Your task to perform on an android device: Show me popular videos on Youtube Image 0: 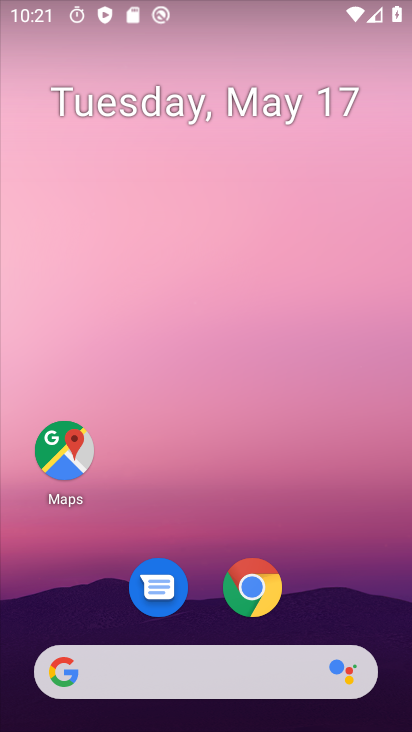
Step 0: drag from (325, 566) to (315, 195)
Your task to perform on an android device: Show me popular videos on Youtube Image 1: 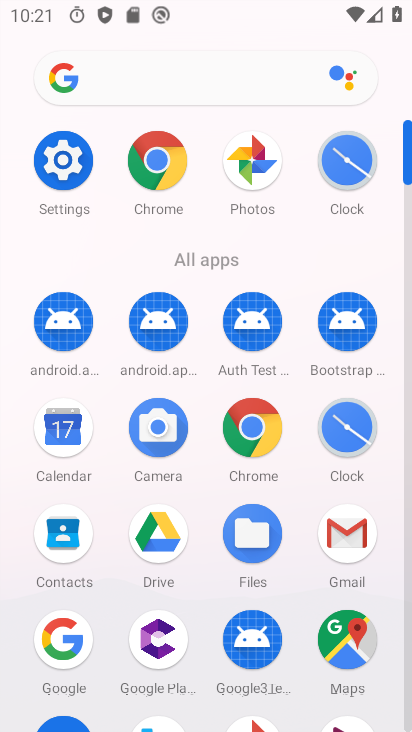
Step 1: drag from (214, 620) to (207, 303)
Your task to perform on an android device: Show me popular videos on Youtube Image 2: 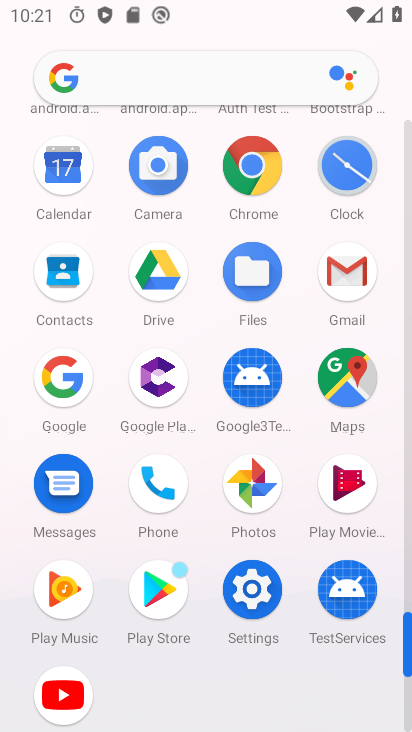
Step 2: click (59, 686)
Your task to perform on an android device: Show me popular videos on Youtube Image 3: 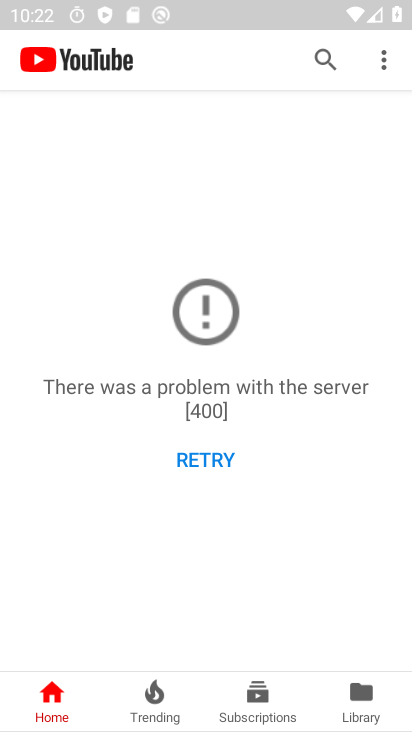
Step 3: click (157, 714)
Your task to perform on an android device: Show me popular videos on Youtube Image 4: 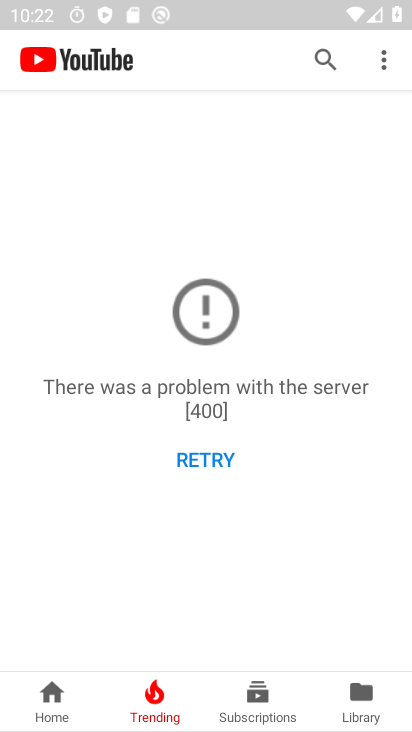
Step 4: task complete